Your task to perform on an android device: turn off notifications in google photos Image 0: 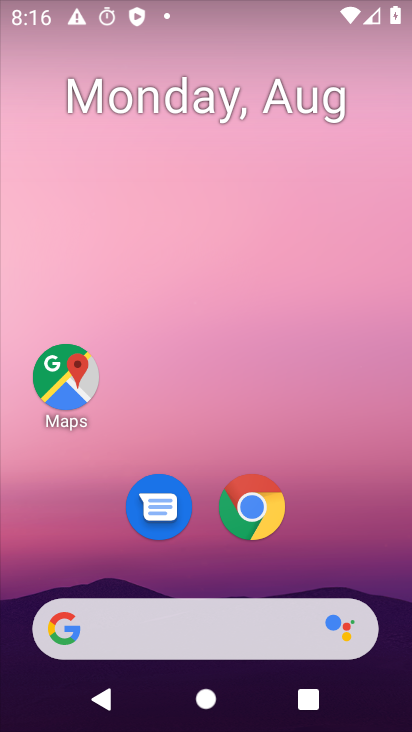
Step 0: drag from (204, 610) to (298, 119)
Your task to perform on an android device: turn off notifications in google photos Image 1: 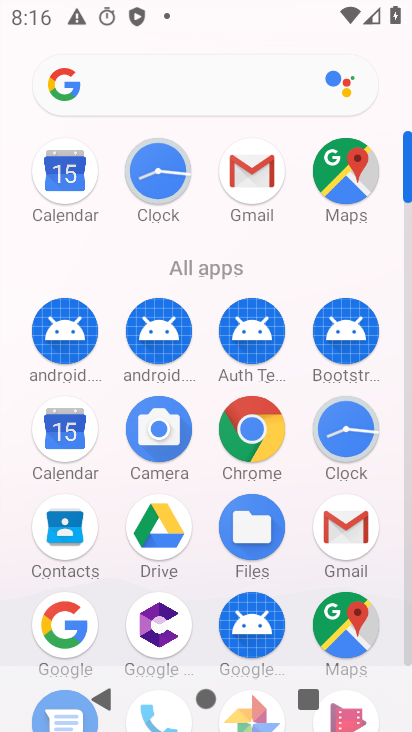
Step 1: drag from (210, 573) to (320, 161)
Your task to perform on an android device: turn off notifications in google photos Image 2: 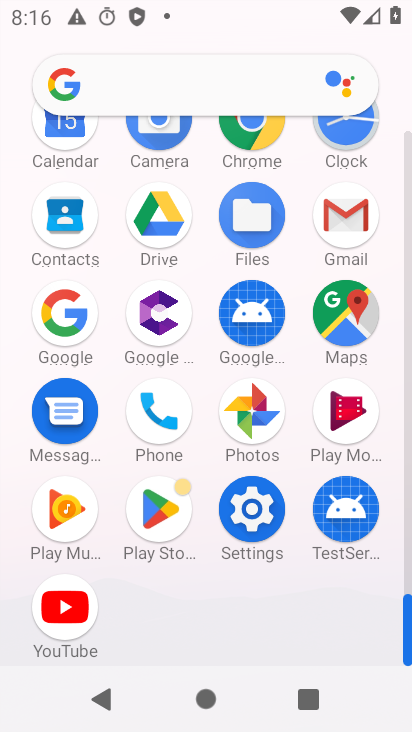
Step 2: click (257, 419)
Your task to perform on an android device: turn off notifications in google photos Image 3: 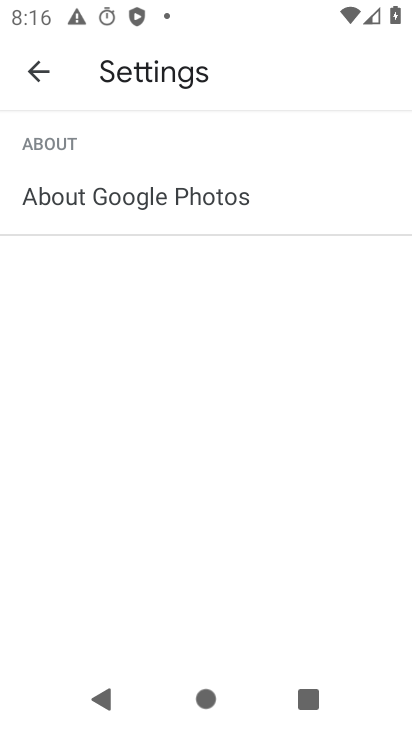
Step 3: click (35, 65)
Your task to perform on an android device: turn off notifications in google photos Image 4: 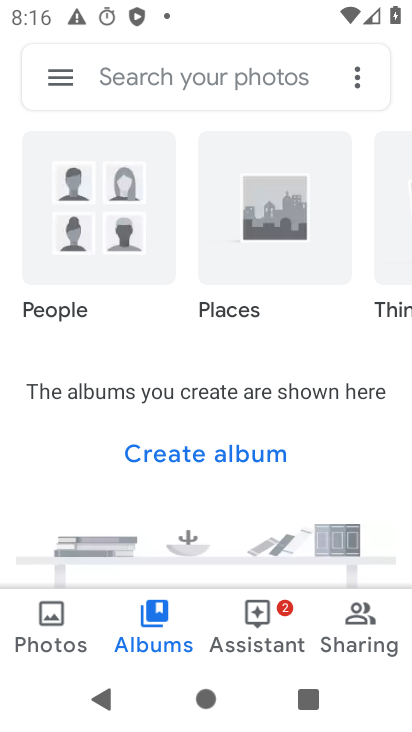
Step 4: click (57, 72)
Your task to perform on an android device: turn off notifications in google photos Image 5: 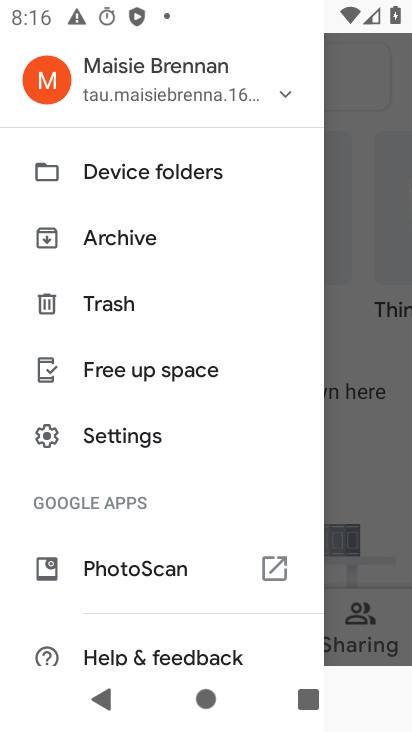
Step 5: click (125, 448)
Your task to perform on an android device: turn off notifications in google photos Image 6: 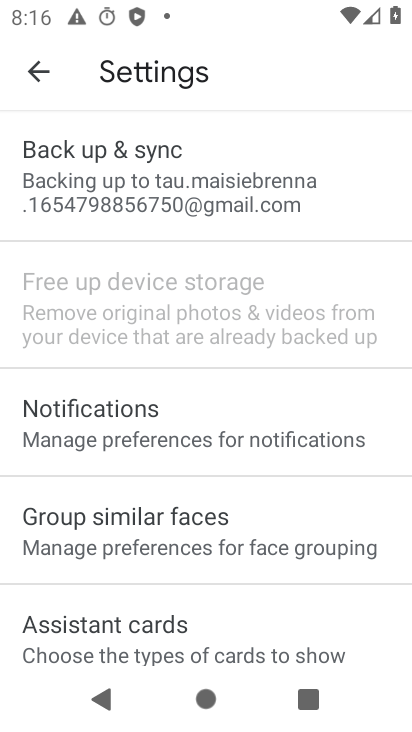
Step 6: click (190, 435)
Your task to perform on an android device: turn off notifications in google photos Image 7: 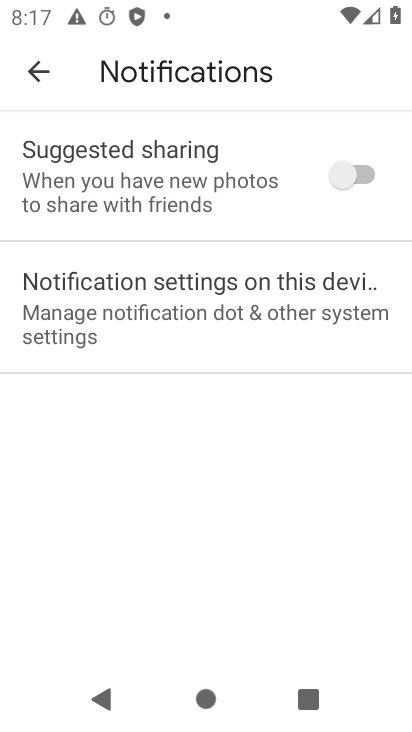
Step 7: click (251, 308)
Your task to perform on an android device: turn off notifications in google photos Image 8: 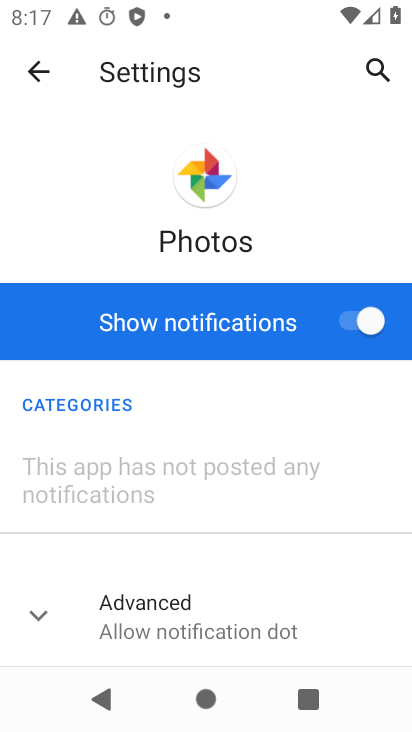
Step 8: click (352, 326)
Your task to perform on an android device: turn off notifications in google photos Image 9: 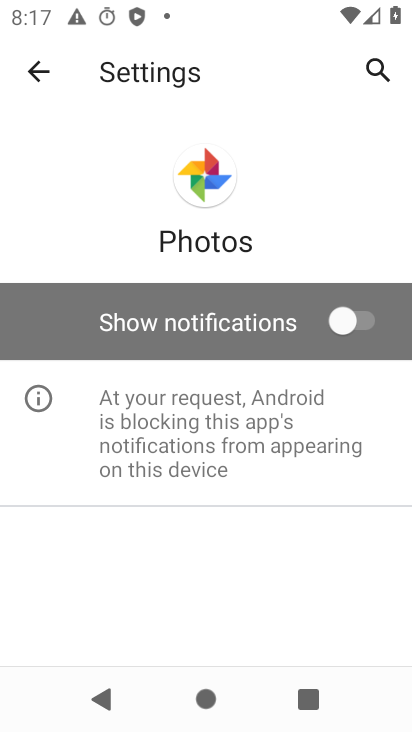
Step 9: task complete